Your task to perform on an android device: visit the assistant section in the google photos Image 0: 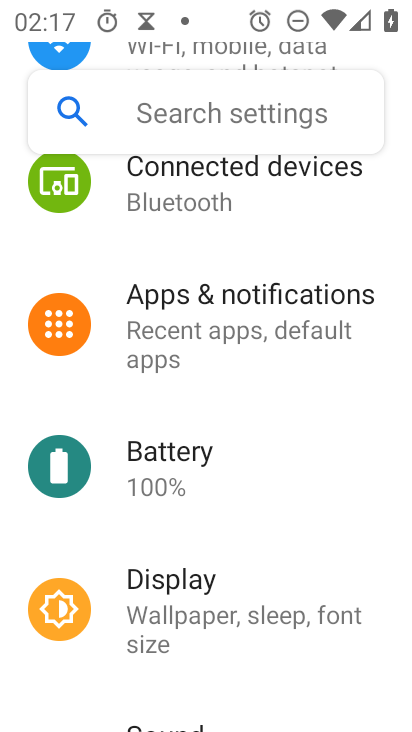
Step 0: press home button
Your task to perform on an android device: visit the assistant section in the google photos Image 1: 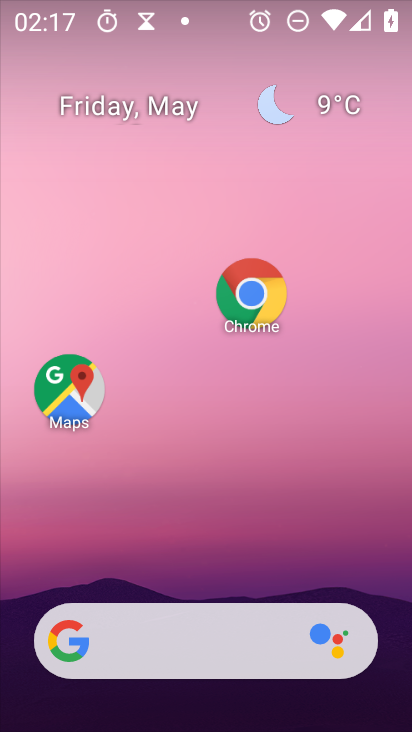
Step 1: drag from (125, 644) to (279, 130)
Your task to perform on an android device: visit the assistant section in the google photos Image 2: 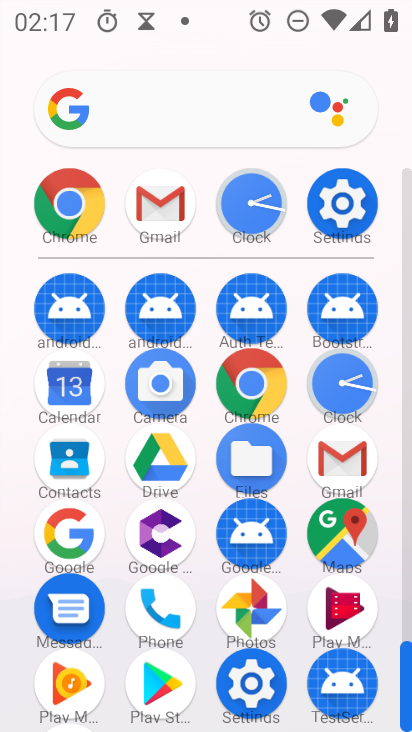
Step 2: click (261, 605)
Your task to perform on an android device: visit the assistant section in the google photos Image 3: 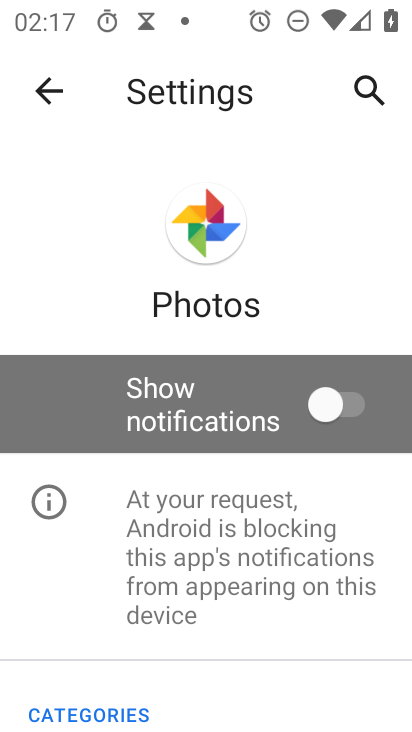
Step 3: click (55, 91)
Your task to perform on an android device: visit the assistant section in the google photos Image 4: 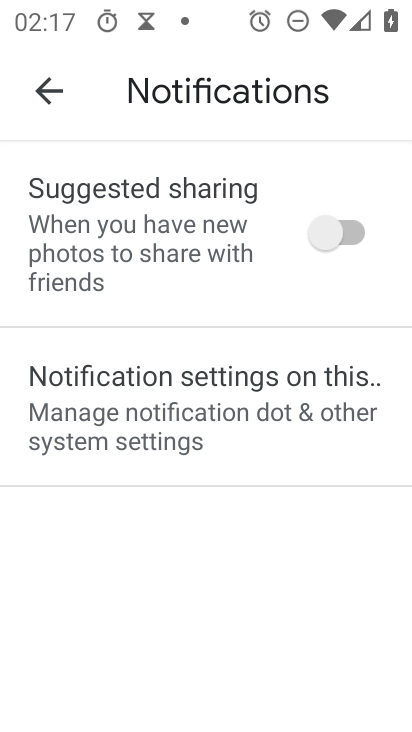
Step 4: click (55, 91)
Your task to perform on an android device: visit the assistant section in the google photos Image 5: 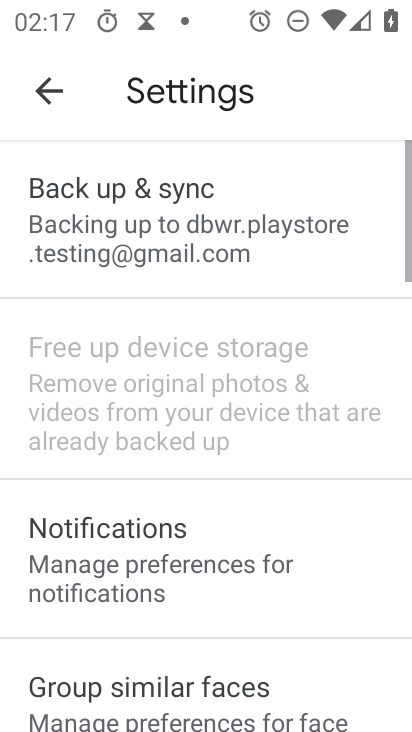
Step 5: click (55, 91)
Your task to perform on an android device: visit the assistant section in the google photos Image 6: 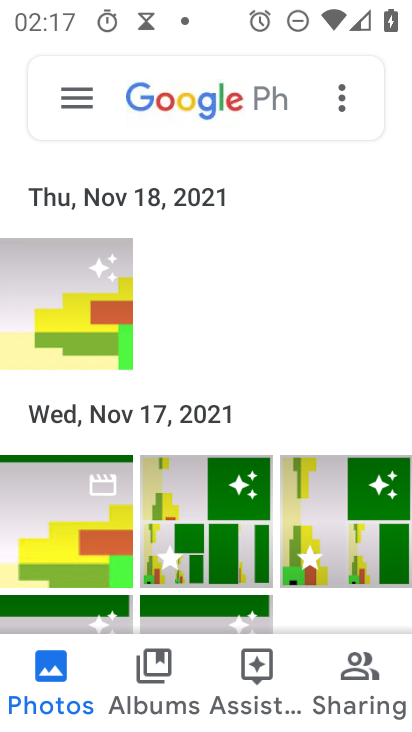
Step 6: click (244, 691)
Your task to perform on an android device: visit the assistant section in the google photos Image 7: 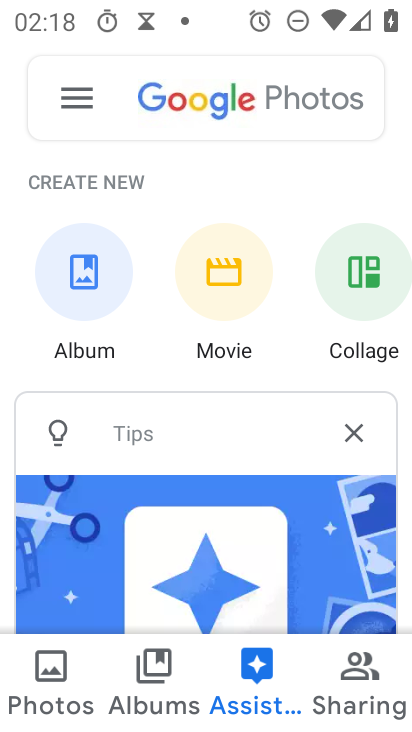
Step 7: task complete